Your task to perform on an android device: turn on improve location accuracy Image 0: 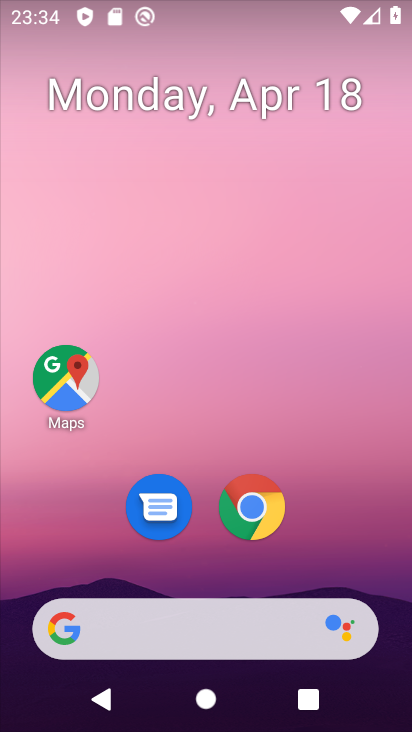
Step 0: drag from (337, 520) to (372, 66)
Your task to perform on an android device: turn on improve location accuracy Image 1: 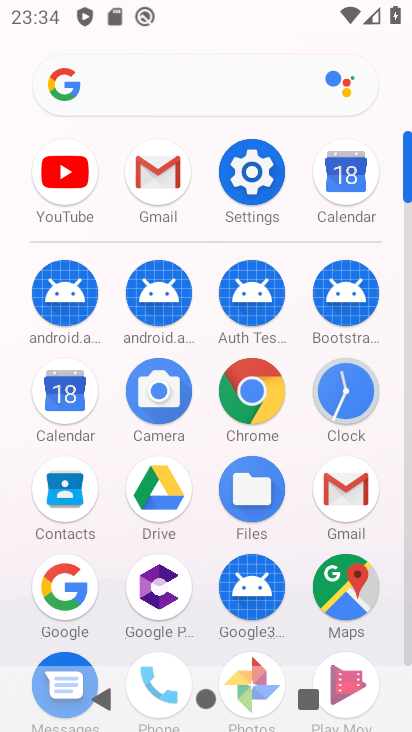
Step 1: click (252, 164)
Your task to perform on an android device: turn on improve location accuracy Image 2: 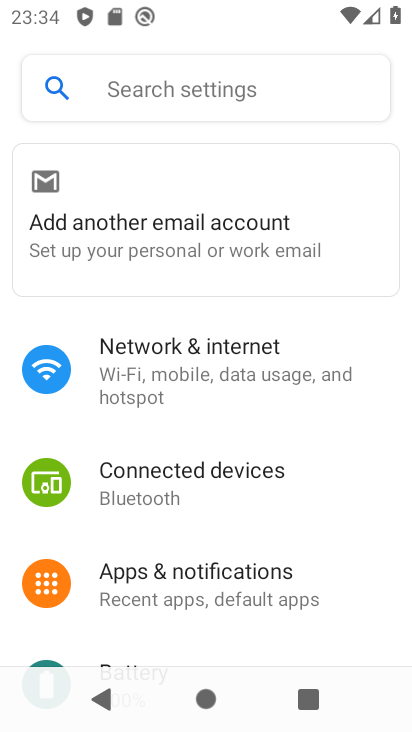
Step 2: drag from (172, 543) to (257, 179)
Your task to perform on an android device: turn on improve location accuracy Image 3: 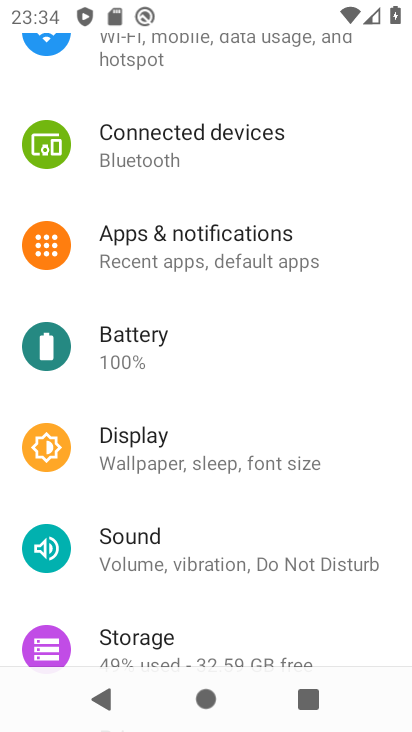
Step 3: drag from (209, 510) to (286, 120)
Your task to perform on an android device: turn on improve location accuracy Image 4: 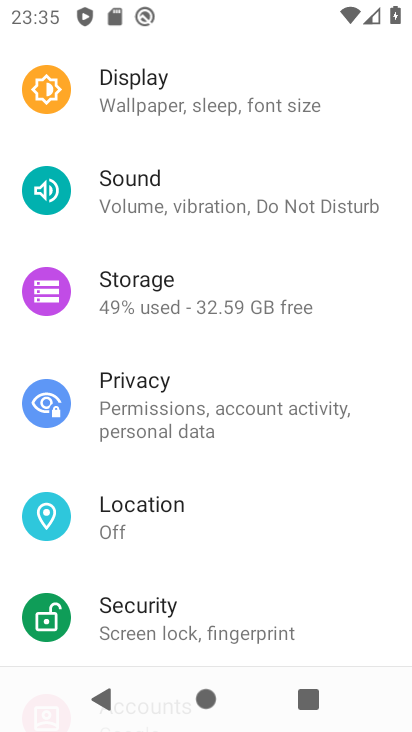
Step 4: click (161, 521)
Your task to perform on an android device: turn on improve location accuracy Image 5: 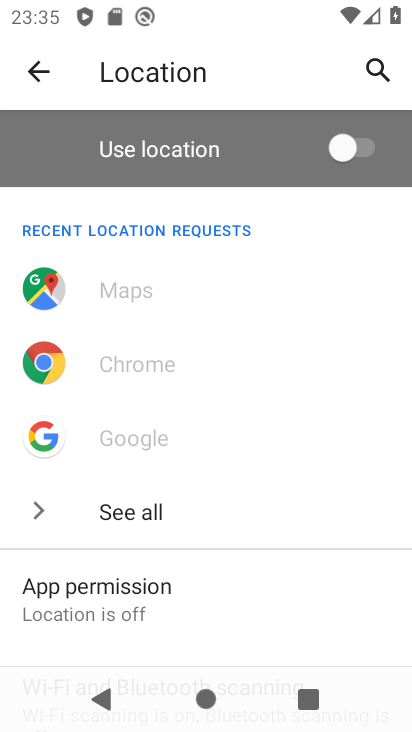
Step 5: drag from (235, 489) to (269, 255)
Your task to perform on an android device: turn on improve location accuracy Image 6: 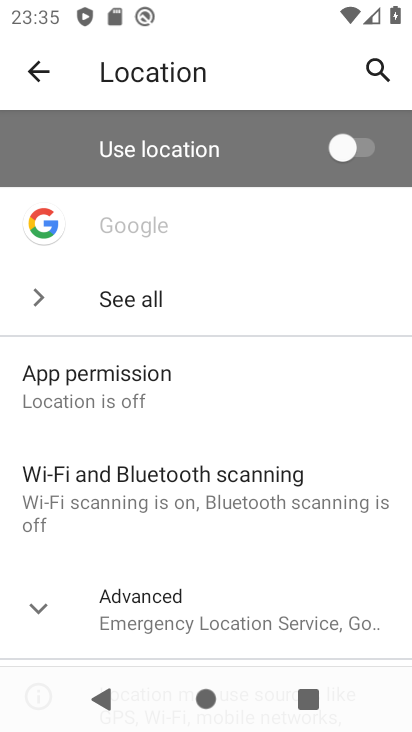
Step 6: click (37, 593)
Your task to perform on an android device: turn on improve location accuracy Image 7: 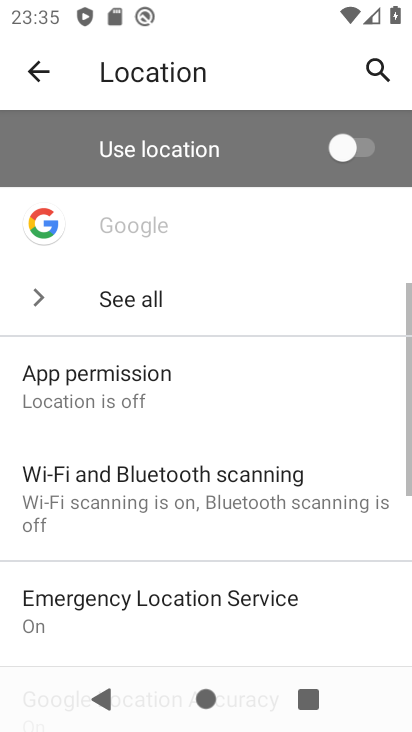
Step 7: drag from (273, 451) to (313, 246)
Your task to perform on an android device: turn on improve location accuracy Image 8: 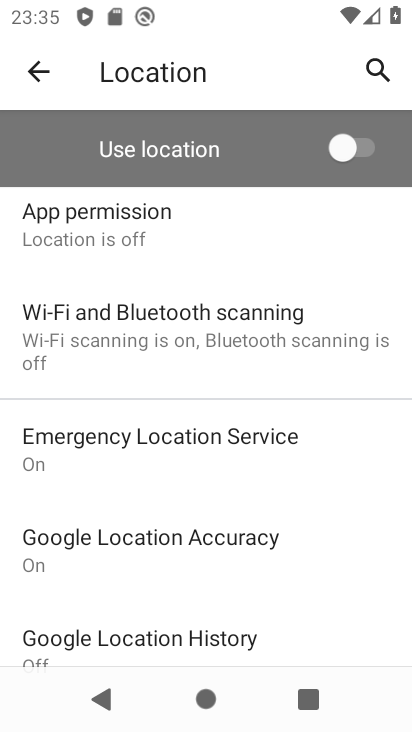
Step 8: click (192, 556)
Your task to perform on an android device: turn on improve location accuracy Image 9: 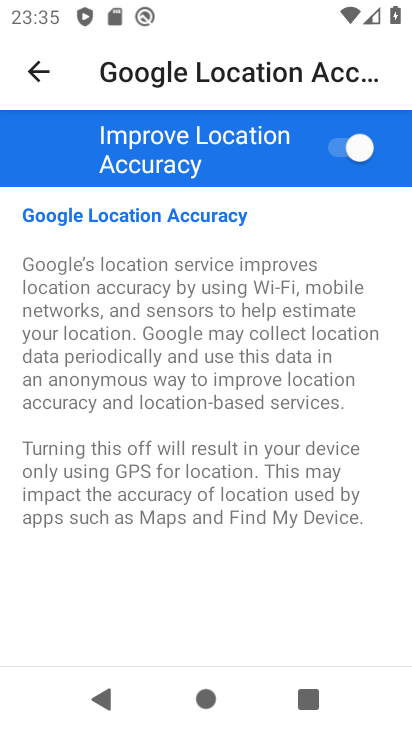
Step 9: task complete